Your task to perform on an android device: uninstall "The Home Depot" Image 0: 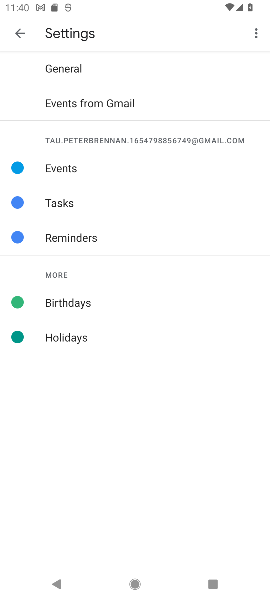
Step 0: press back button
Your task to perform on an android device: uninstall "The Home Depot" Image 1: 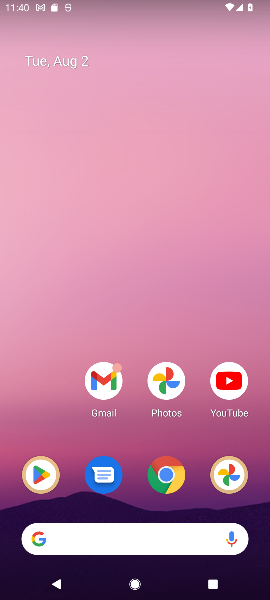
Step 1: click (36, 463)
Your task to perform on an android device: uninstall "The Home Depot" Image 2: 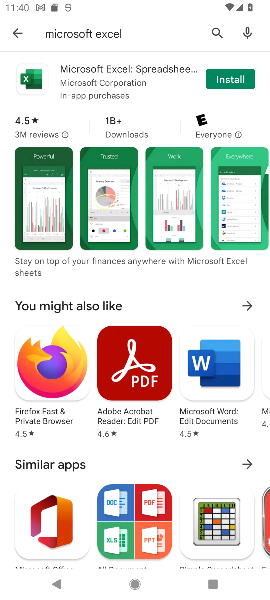
Step 2: click (215, 28)
Your task to perform on an android device: uninstall "The Home Depot" Image 3: 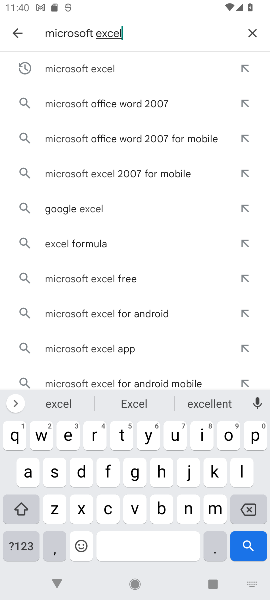
Step 3: click (257, 32)
Your task to perform on an android device: uninstall "The Home Depot" Image 4: 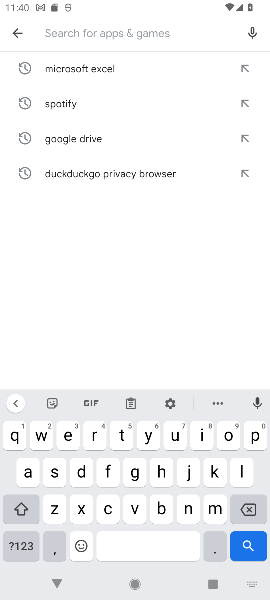
Step 4: type "The Home Depot"
Your task to perform on an android device: uninstall "The Home Depot" Image 5: 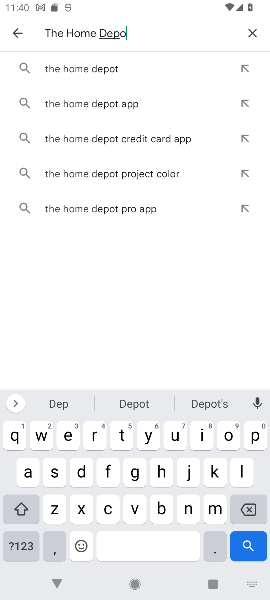
Step 5: type ""
Your task to perform on an android device: uninstall "The Home Depot" Image 6: 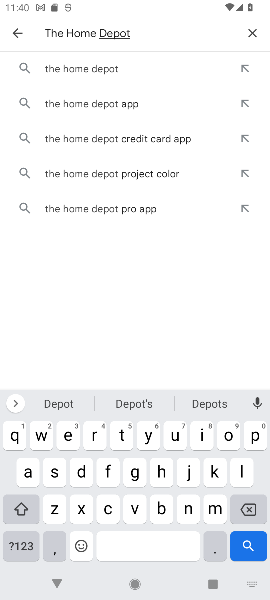
Step 6: click (126, 65)
Your task to perform on an android device: uninstall "The Home Depot" Image 7: 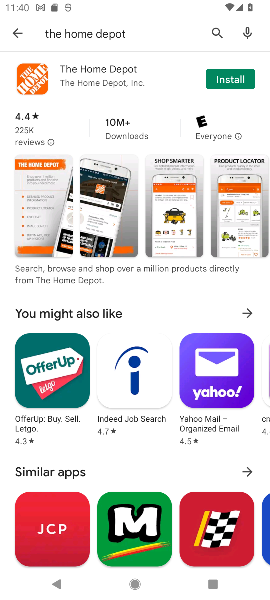
Step 7: task complete